Your task to perform on an android device: set the stopwatch Image 0: 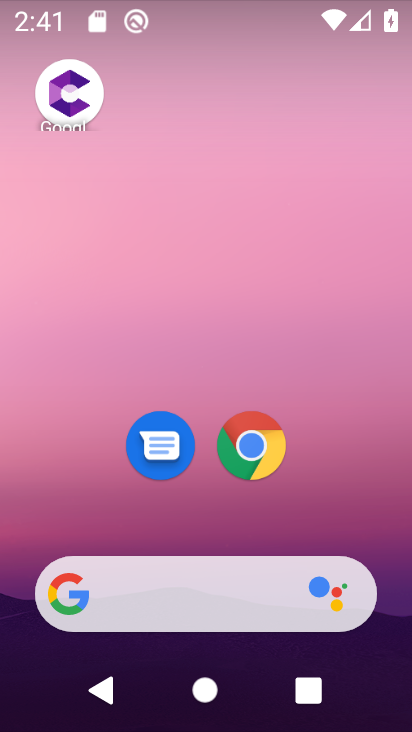
Step 0: drag from (404, 500) to (411, 548)
Your task to perform on an android device: set the stopwatch Image 1: 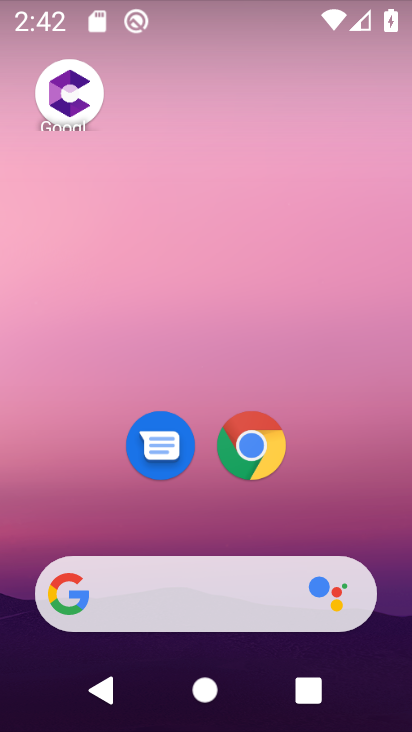
Step 1: drag from (386, 551) to (403, 56)
Your task to perform on an android device: set the stopwatch Image 2: 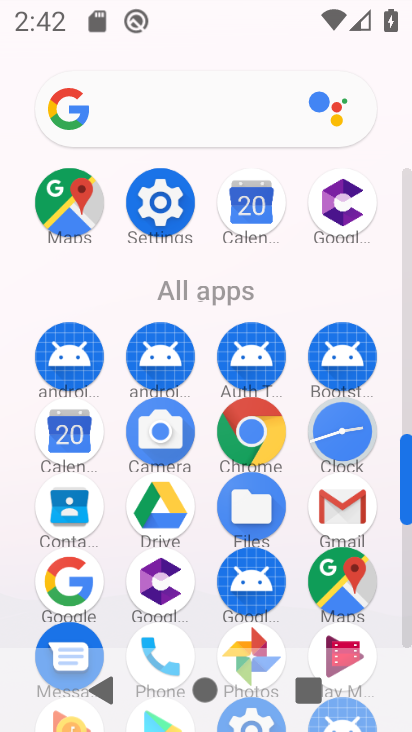
Step 2: click (337, 433)
Your task to perform on an android device: set the stopwatch Image 3: 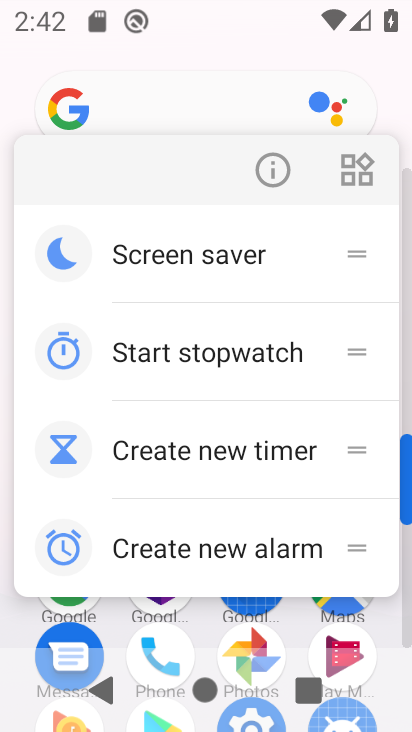
Step 3: click (407, 148)
Your task to perform on an android device: set the stopwatch Image 4: 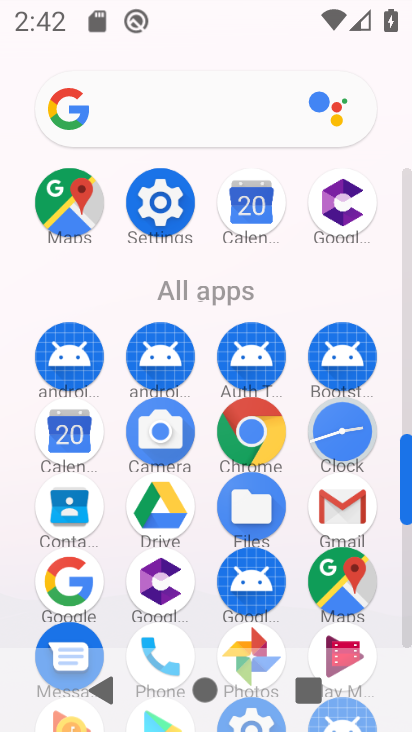
Step 4: click (340, 435)
Your task to perform on an android device: set the stopwatch Image 5: 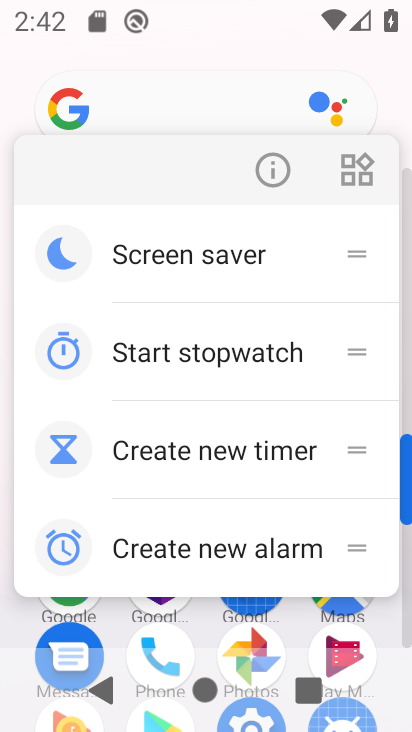
Step 5: click (406, 304)
Your task to perform on an android device: set the stopwatch Image 6: 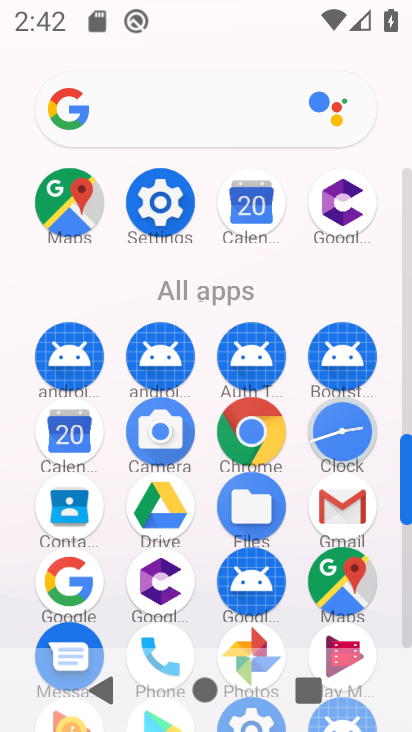
Step 6: click (344, 437)
Your task to perform on an android device: set the stopwatch Image 7: 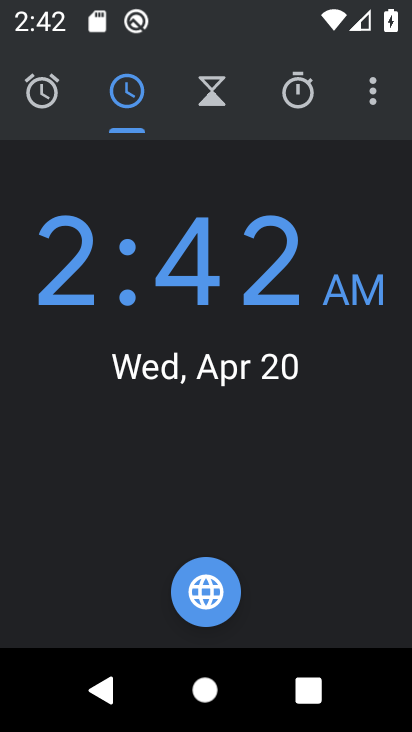
Step 7: click (292, 101)
Your task to perform on an android device: set the stopwatch Image 8: 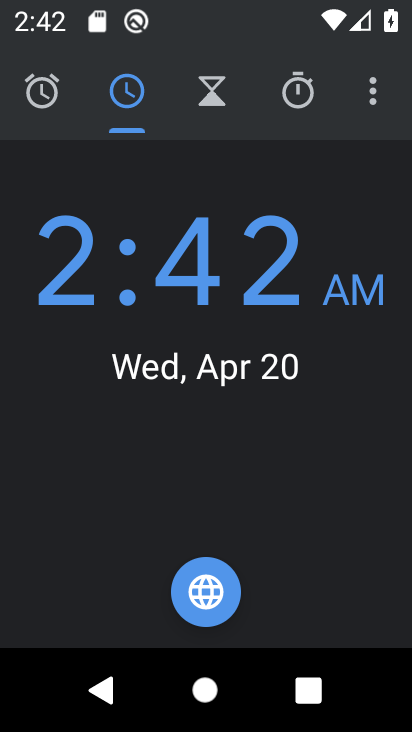
Step 8: click (298, 93)
Your task to perform on an android device: set the stopwatch Image 9: 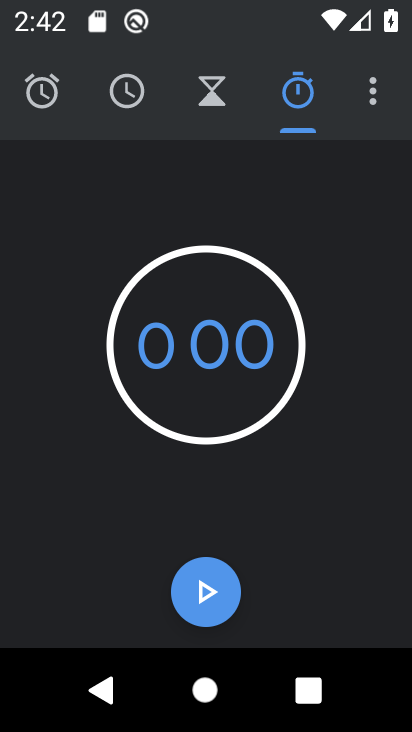
Step 9: click (203, 599)
Your task to perform on an android device: set the stopwatch Image 10: 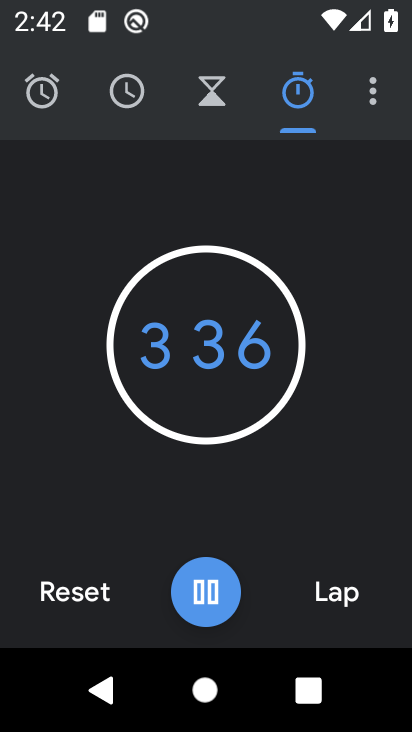
Step 10: click (205, 602)
Your task to perform on an android device: set the stopwatch Image 11: 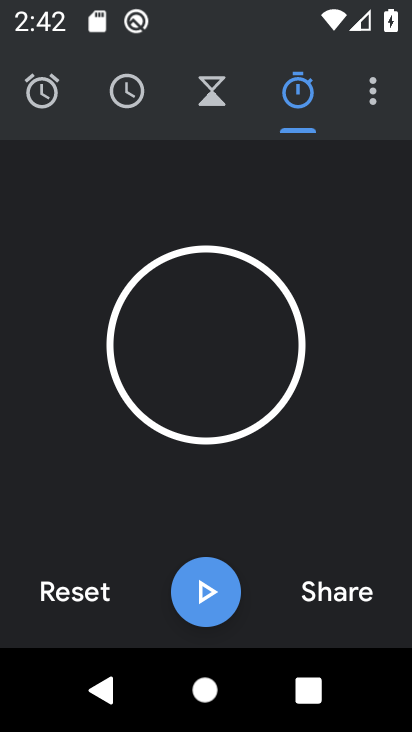
Step 11: task complete